Your task to perform on an android device: What's on my calendar today? Image 0: 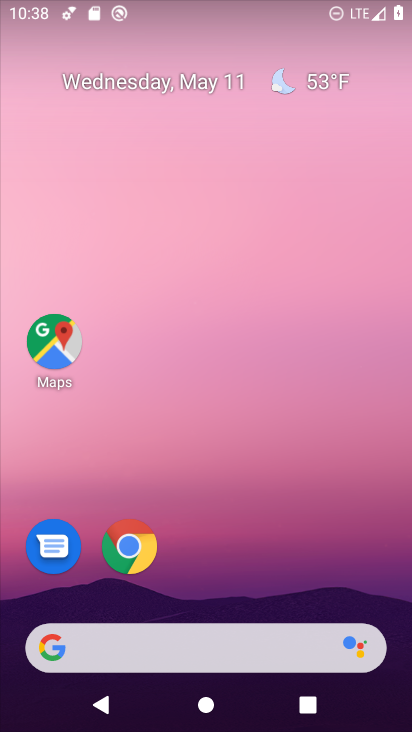
Step 0: drag from (405, 642) to (224, 32)
Your task to perform on an android device: What's on my calendar today? Image 1: 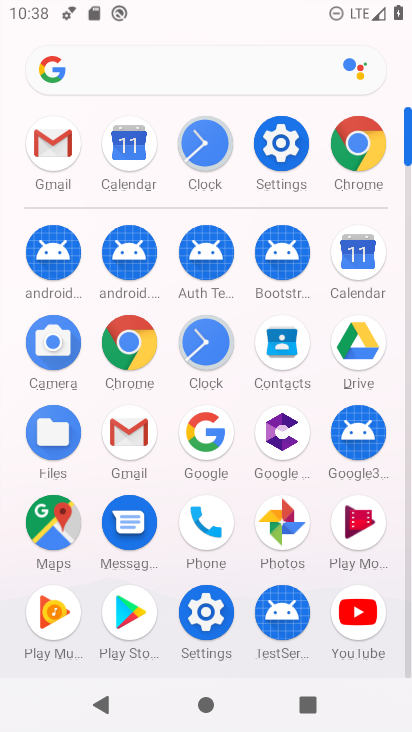
Step 1: click (372, 267)
Your task to perform on an android device: What's on my calendar today? Image 2: 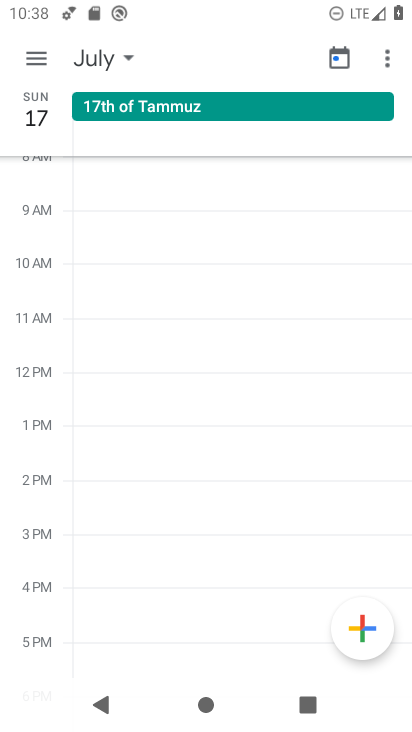
Step 2: click (96, 56)
Your task to perform on an android device: What's on my calendar today? Image 3: 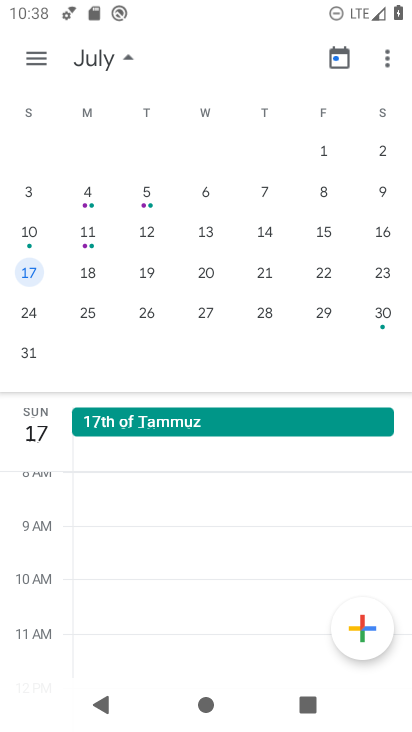
Step 3: drag from (124, 298) to (402, 246)
Your task to perform on an android device: What's on my calendar today? Image 4: 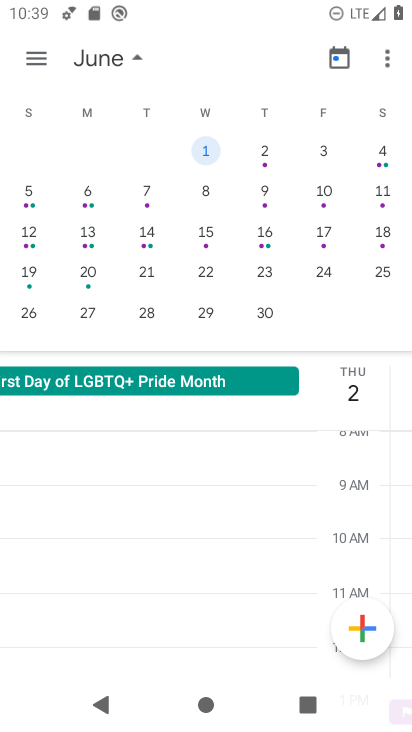
Step 4: drag from (90, 262) to (410, 190)
Your task to perform on an android device: What's on my calendar today? Image 5: 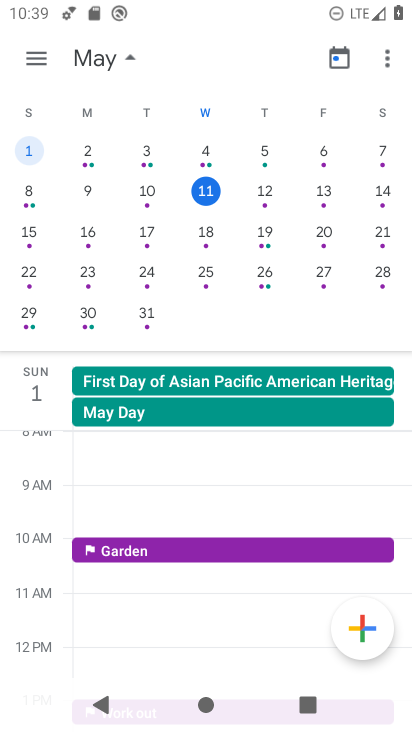
Step 5: click (263, 189)
Your task to perform on an android device: What's on my calendar today? Image 6: 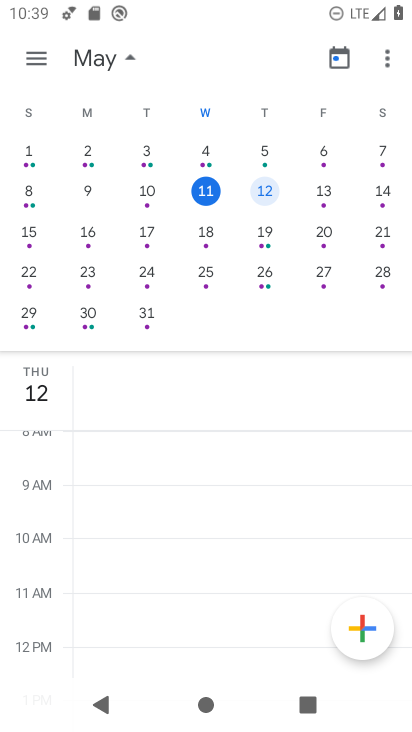
Step 6: task complete